Your task to perform on an android device: Search for pizza restaurants on Maps Image 0: 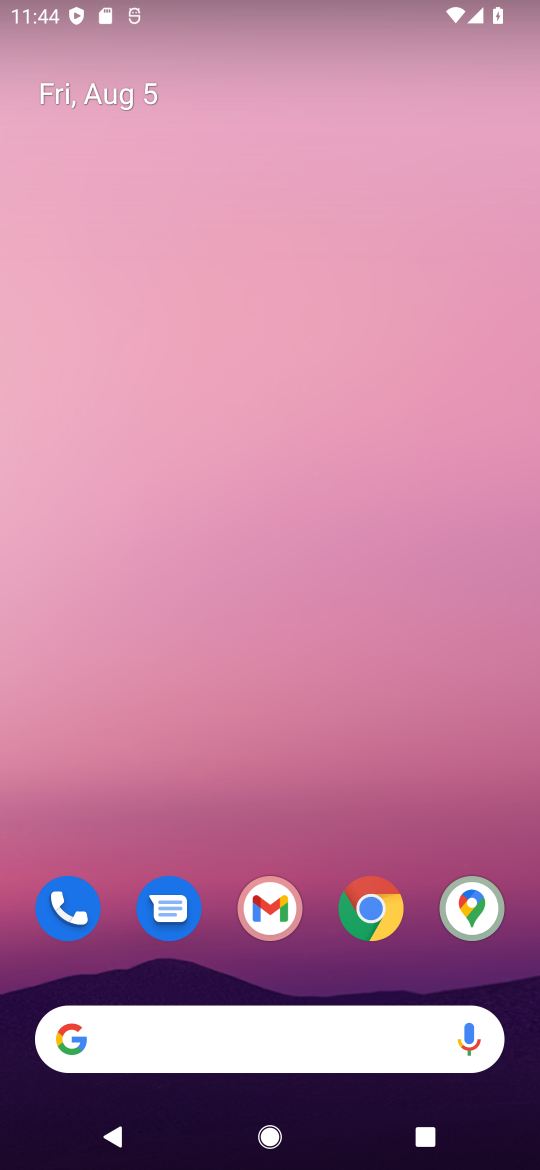
Step 0: drag from (419, 847) to (489, 172)
Your task to perform on an android device: Search for pizza restaurants on Maps Image 1: 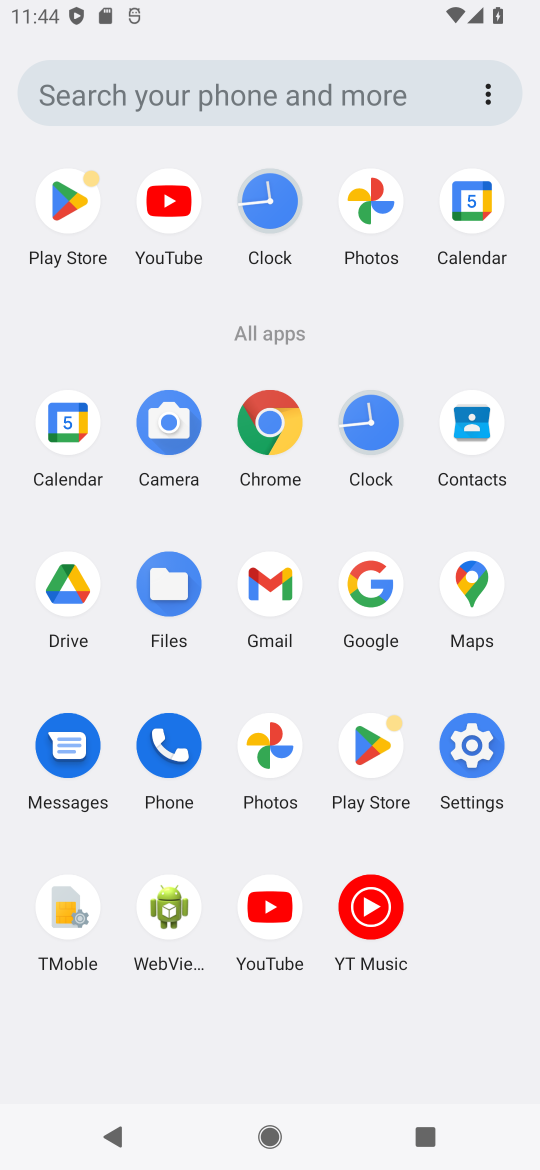
Step 1: click (483, 581)
Your task to perform on an android device: Search for pizza restaurants on Maps Image 2: 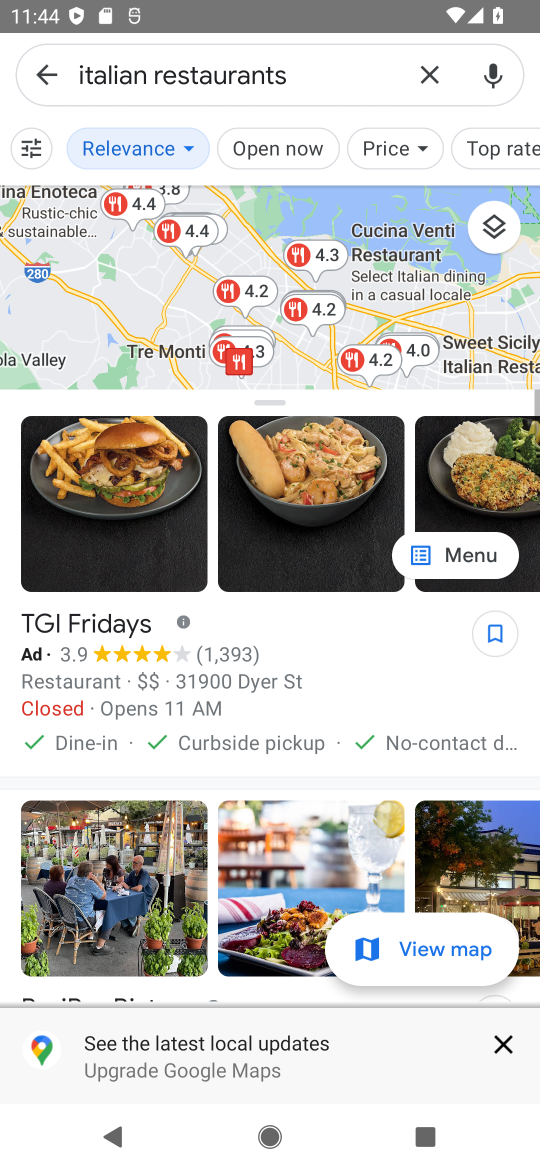
Step 2: click (244, 88)
Your task to perform on an android device: Search for pizza restaurants on Maps Image 3: 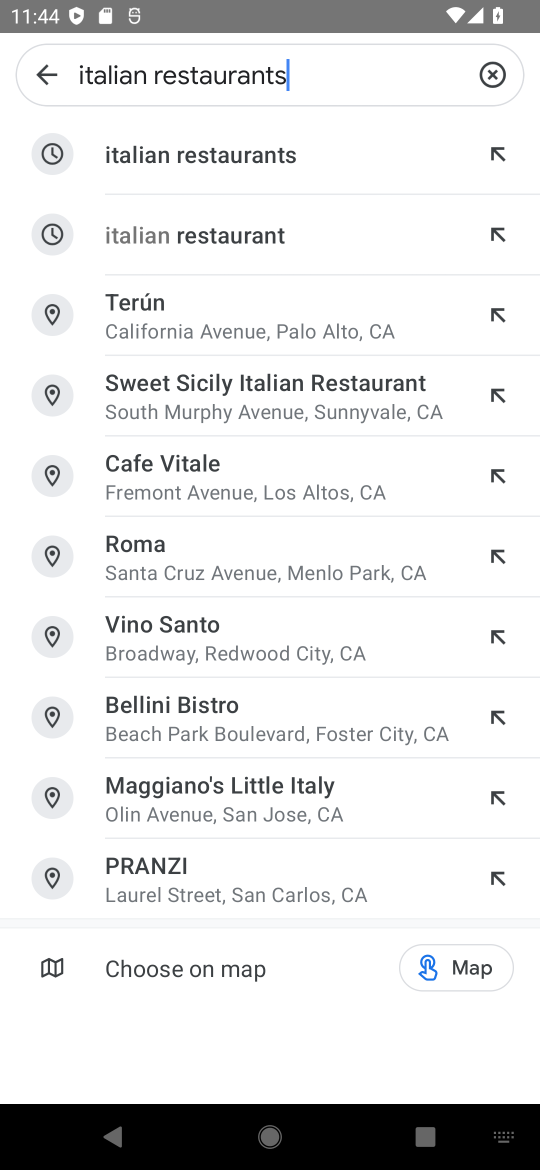
Step 3: click (492, 62)
Your task to perform on an android device: Search for pizza restaurants on Maps Image 4: 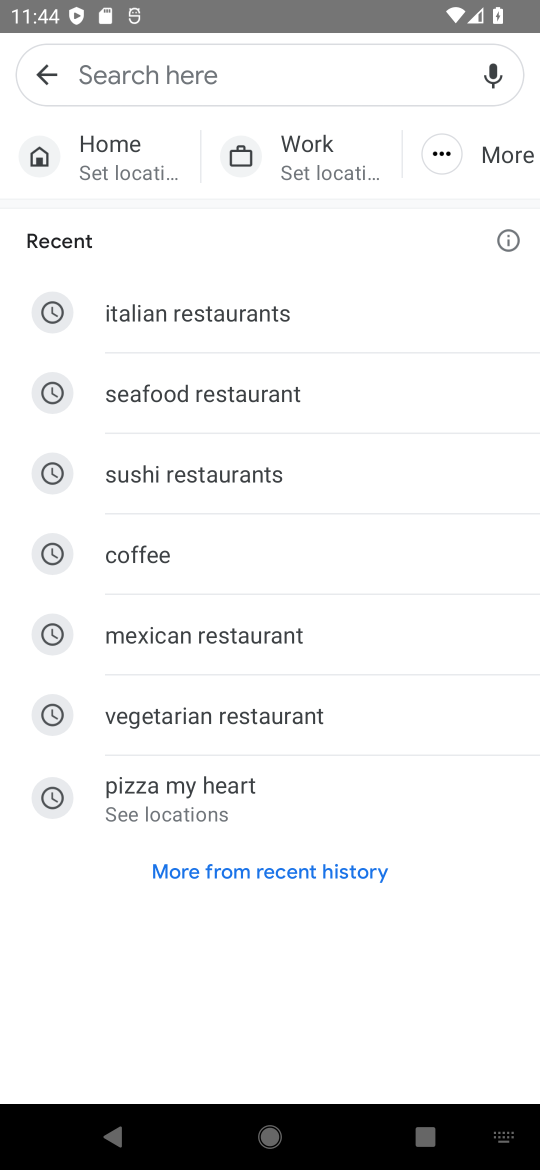
Step 4: type "pizza restaurants"
Your task to perform on an android device: Search for pizza restaurants on Maps Image 5: 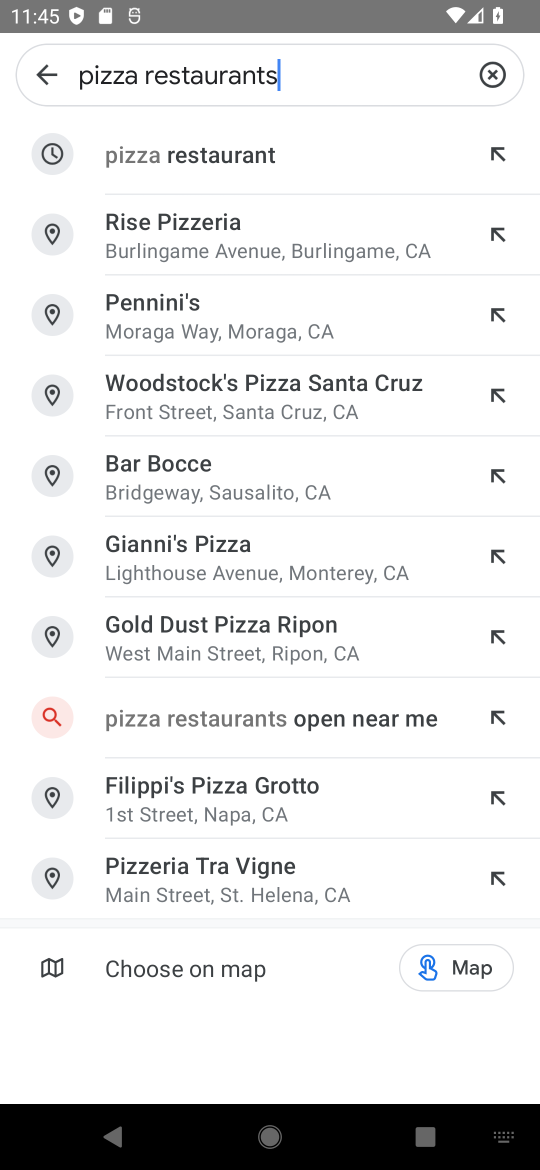
Step 5: press enter
Your task to perform on an android device: Search for pizza restaurants on Maps Image 6: 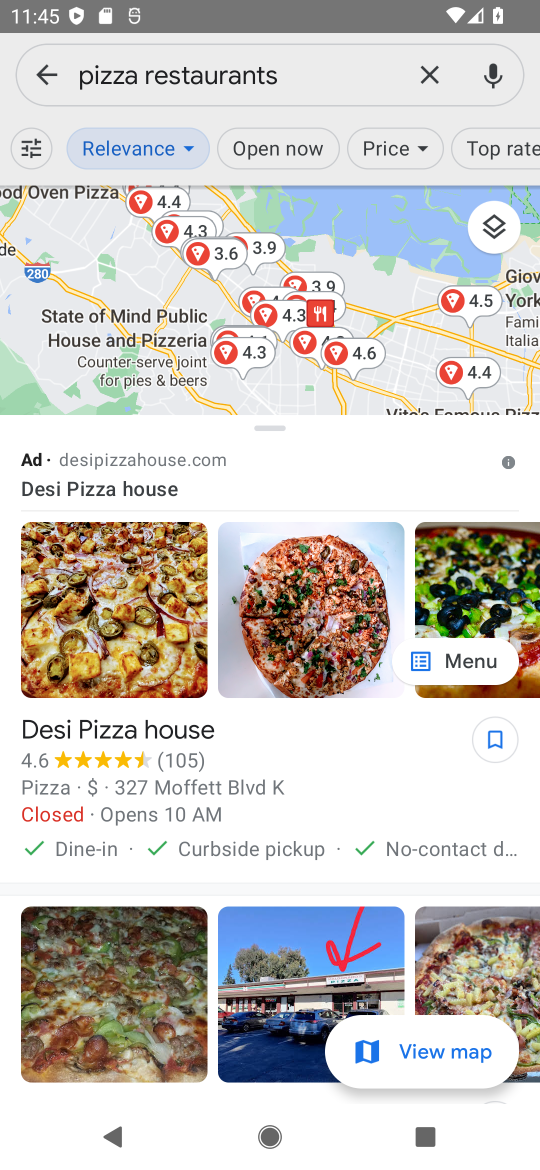
Step 6: task complete